Your task to perform on an android device: Open Google Maps Image 0: 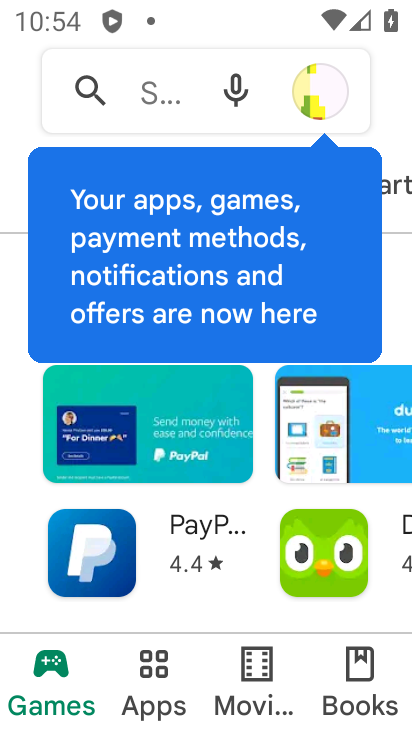
Step 0: press home button
Your task to perform on an android device: Open Google Maps Image 1: 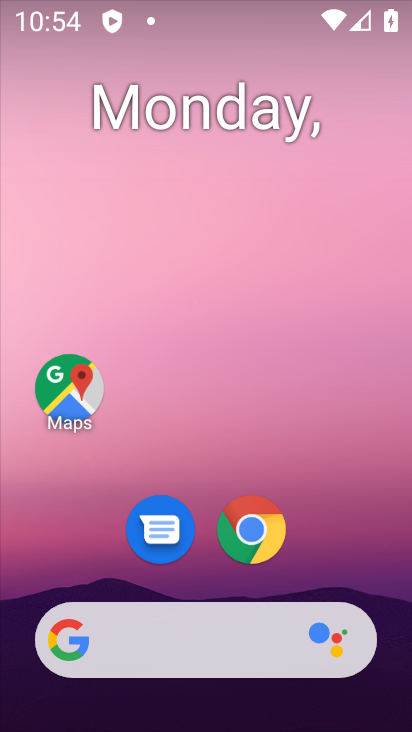
Step 1: click (75, 404)
Your task to perform on an android device: Open Google Maps Image 2: 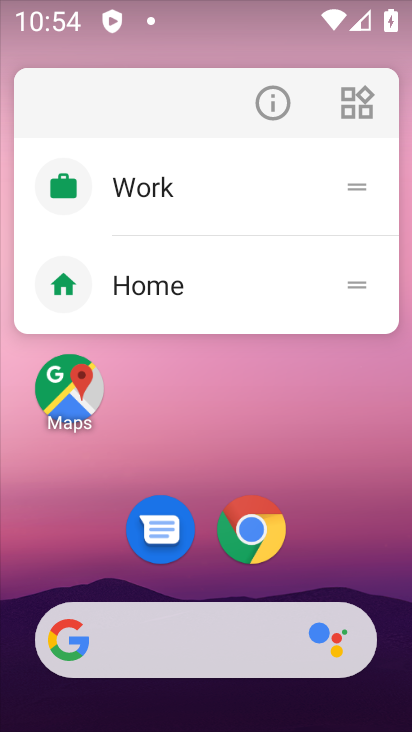
Step 2: click (75, 404)
Your task to perform on an android device: Open Google Maps Image 3: 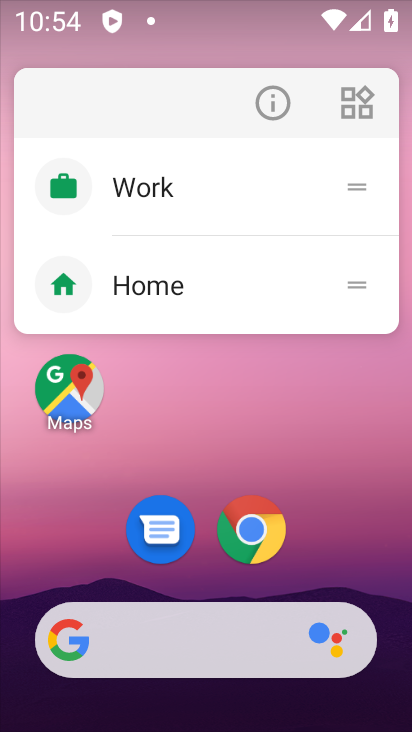
Step 3: click (75, 404)
Your task to perform on an android device: Open Google Maps Image 4: 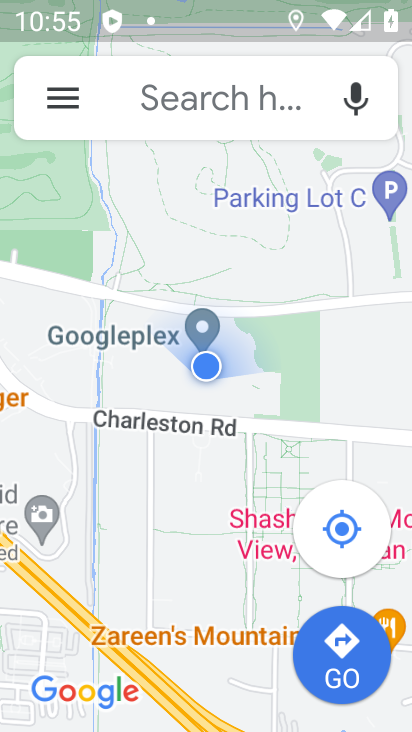
Step 4: task complete